Your task to perform on an android device: Go to Amazon Image 0: 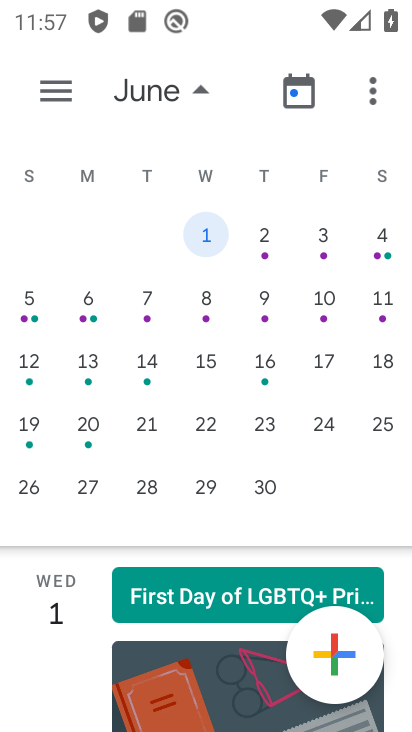
Step 0: press home button
Your task to perform on an android device: Go to Amazon Image 1: 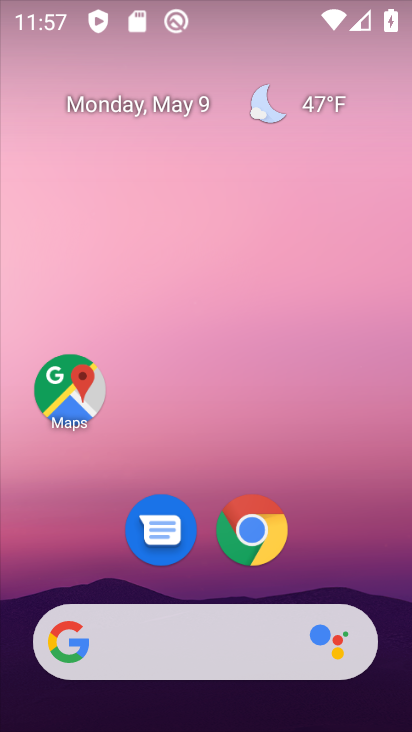
Step 1: drag from (303, 573) to (306, 219)
Your task to perform on an android device: Go to Amazon Image 2: 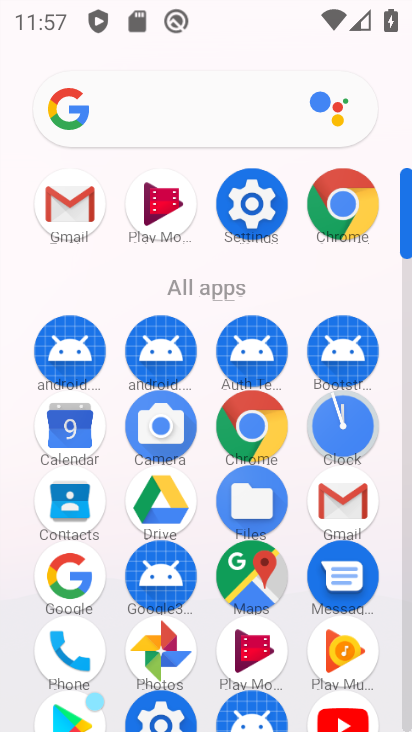
Step 2: click (365, 203)
Your task to perform on an android device: Go to Amazon Image 3: 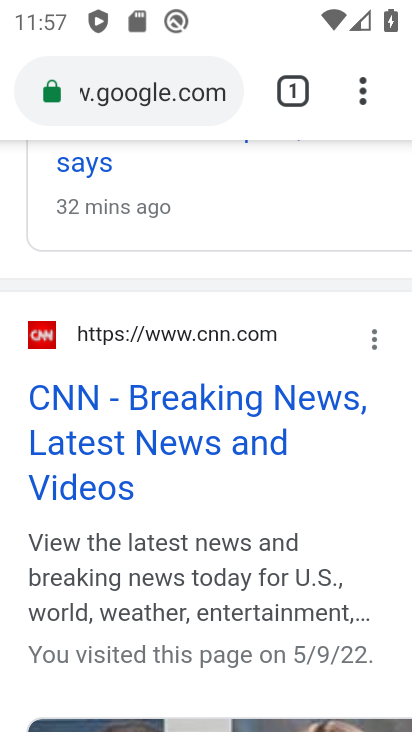
Step 3: click (299, 103)
Your task to perform on an android device: Go to Amazon Image 4: 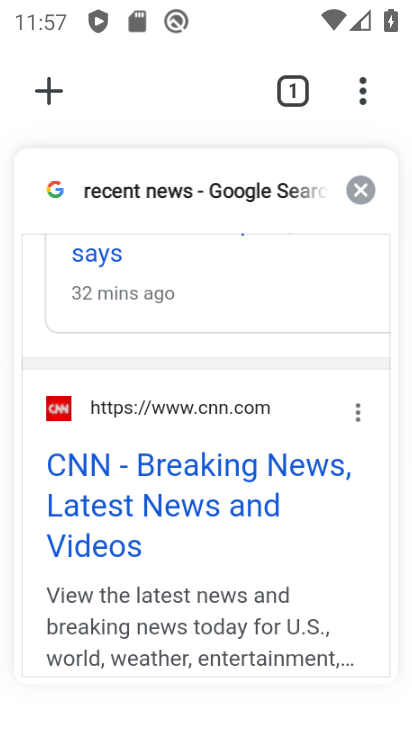
Step 4: click (49, 93)
Your task to perform on an android device: Go to Amazon Image 5: 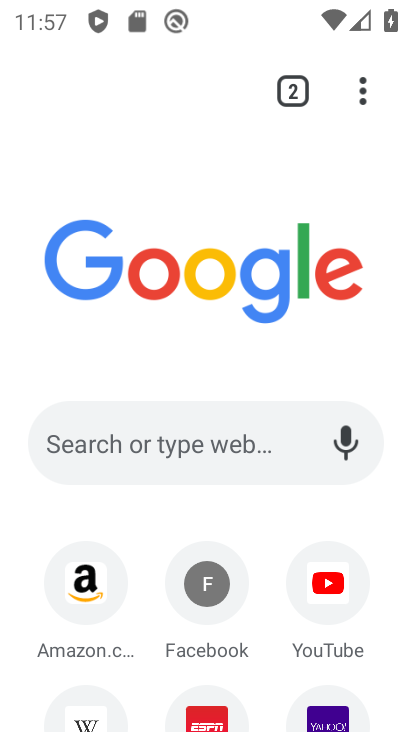
Step 5: click (92, 590)
Your task to perform on an android device: Go to Amazon Image 6: 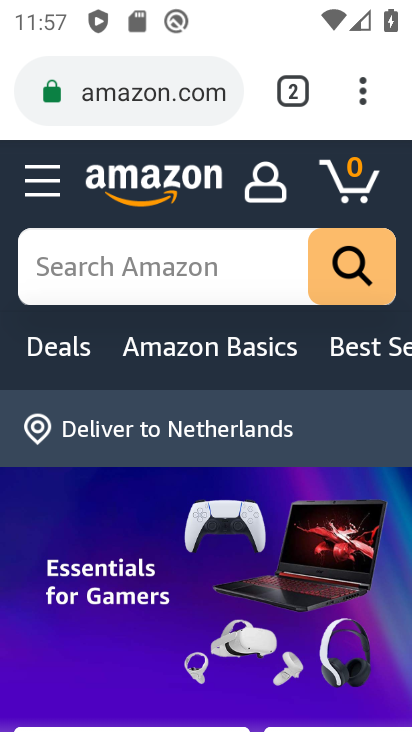
Step 6: task complete